Your task to perform on an android device: turn on translation in the chrome app Image 0: 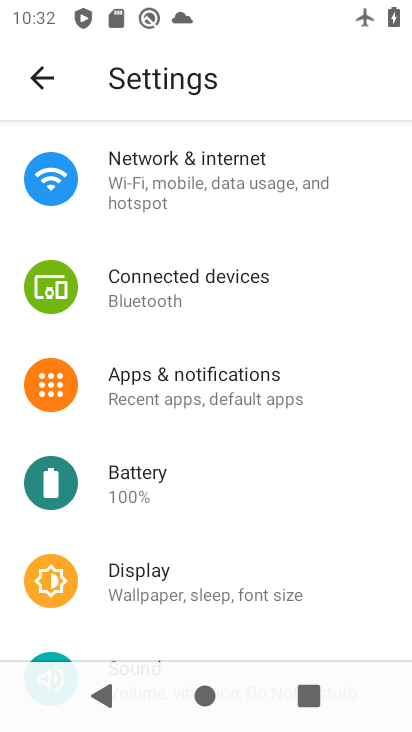
Step 0: press home button
Your task to perform on an android device: turn on translation in the chrome app Image 1: 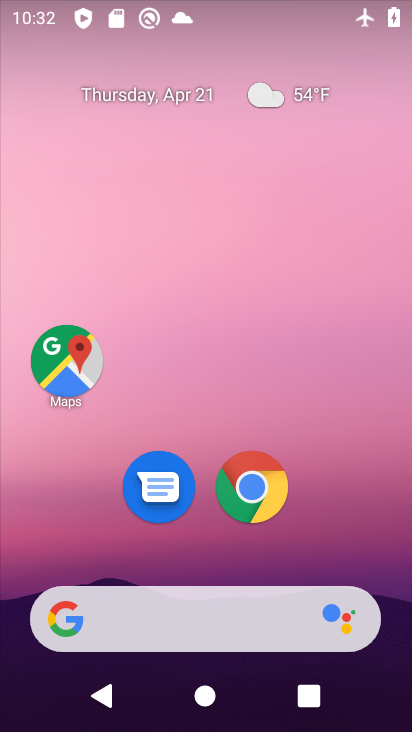
Step 1: drag from (390, 537) to (350, 137)
Your task to perform on an android device: turn on translation in the chrome app Image 2: 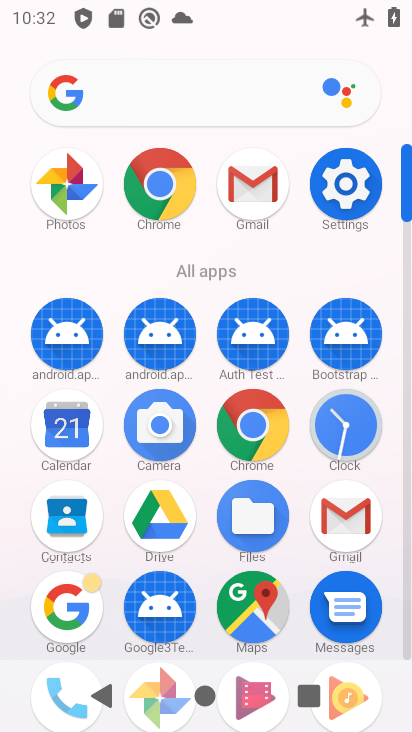
Step 2: click (265, 436)
Your task to perform on an android device: turn on translation in the chrome app Image 3: 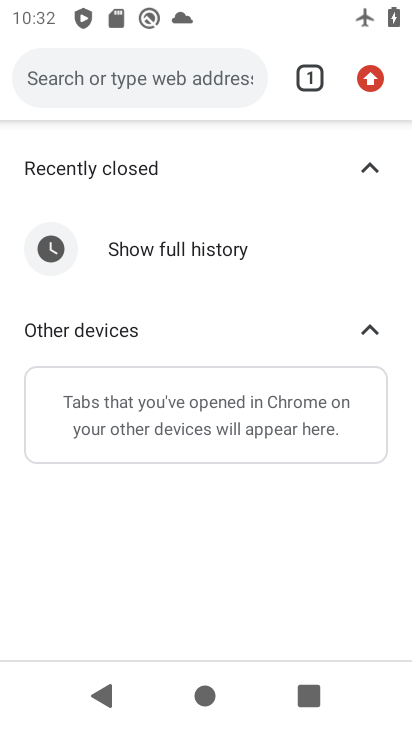
Step 3: drag from (373, 82) to (280, 561)
Your task to perform on an android device: turn on translation in the chrome app Image 4: 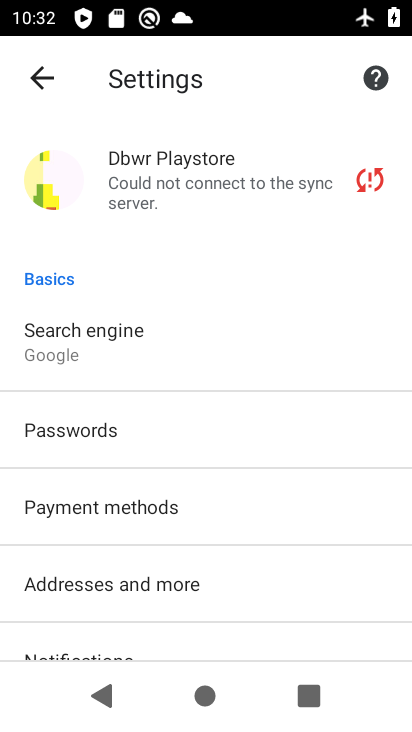
Step 4: drag from (258, 595) to (284, 291)
Your task to perform on an android device: turn on translation in the chrome app Image 5: 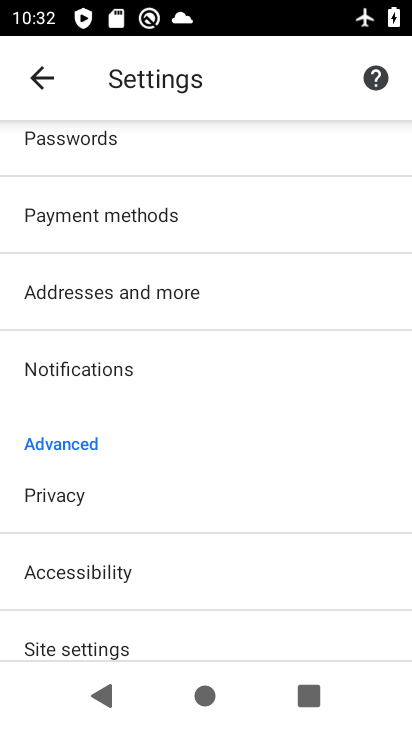
Step 5: drag from (283, 518) to (301, 280)
Your task to perform on an android device: turn on translation in the chrome app Image 6: 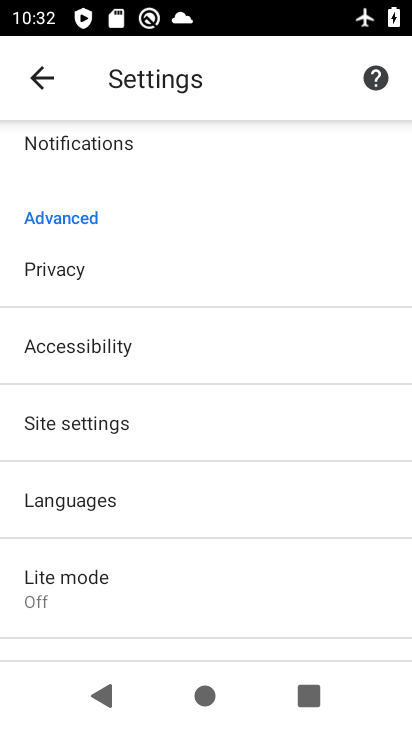
Step 6: click (176, 515)
Your task to perform on an android device: turn on translation in the chrome app Image 7: 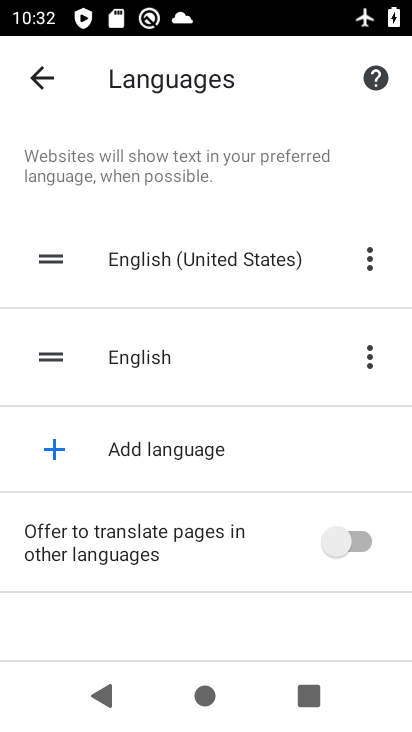
Step 7: click (358, 534)
Your task to perform on an android device: turn on translation in the chrome app Image 8: 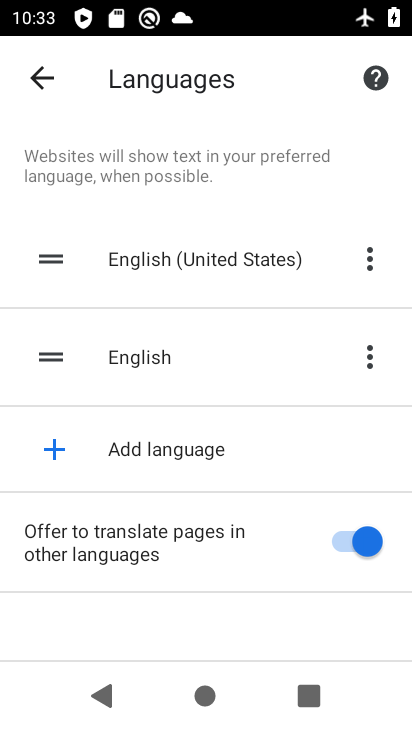
Step 8: press home button
Your task to perform on an android device: turn on translation in the chrome app Image 9: 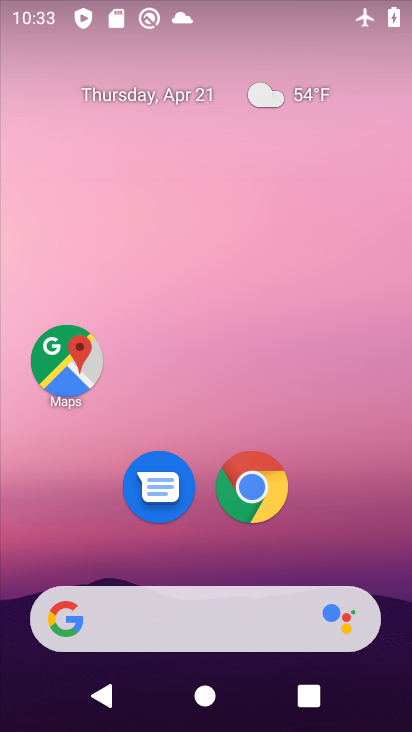
Step 9: drag from (344, 527) to (385, 162)
Your task to perform on an android device: turn on translation in the chrome app Image 10: 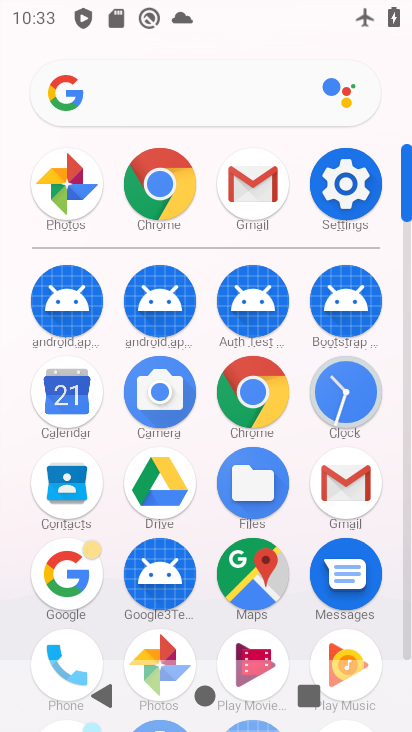
Step 10: click (365, 180)
Your task to perform on an android device: turn on translation in the chrome app Image 11: 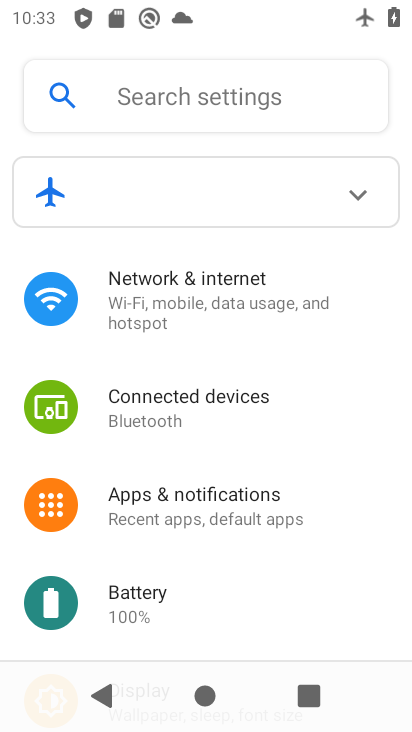
Step 11: press home button
Your task to perform on an android device: turn on translation in the chrome app Image 12: 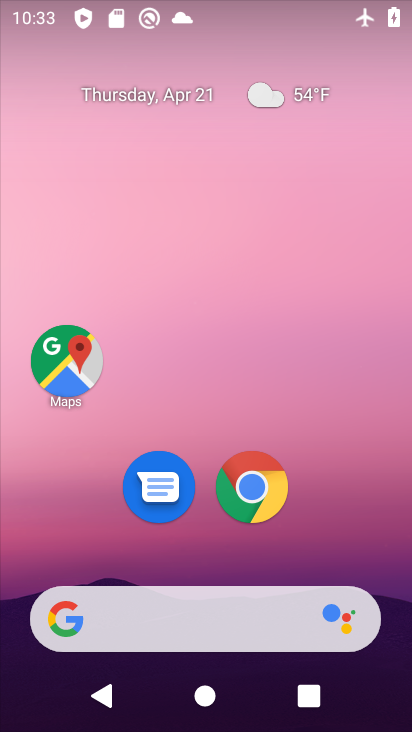
Step 12: drag from (371, 531) to (395, 158)
Your task to perform on an android device: turn on translation in the chrome app Image 13: 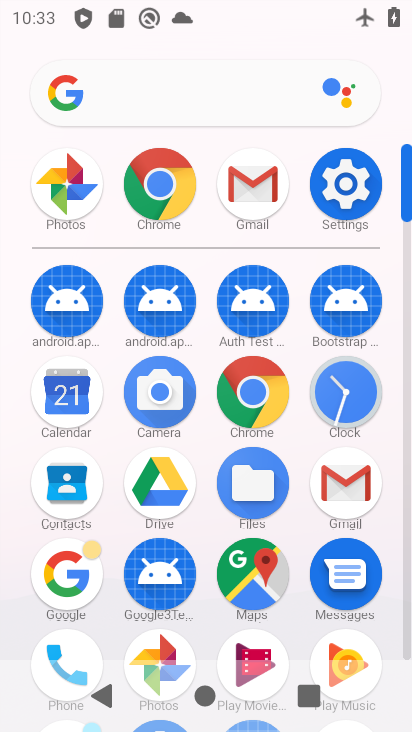
Step 13: click (245, 408)
Your task to perform on an android device: turn on translation in the chrome app Image 14: 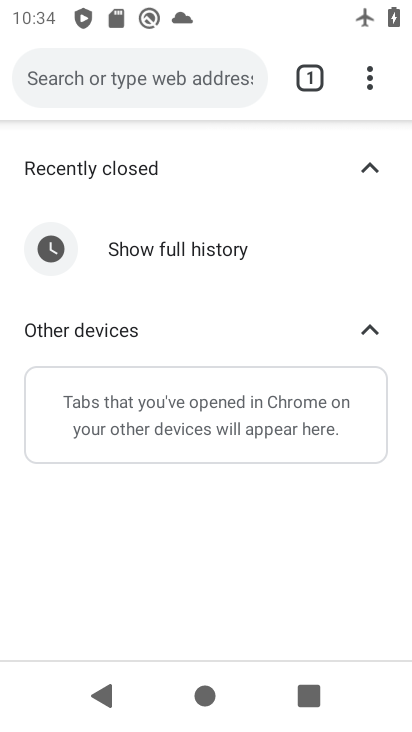
Step 14: drag from (376, 80) to (162, 552)
Your task to perform on an android device: turn on translation in the chrome app Image 15: 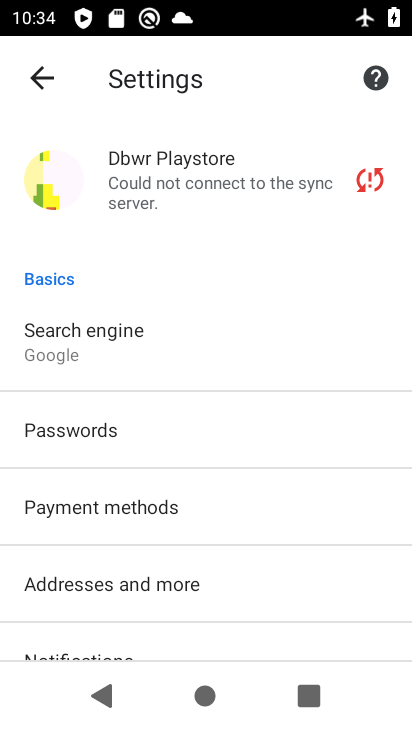
Step 15: drag from (274, 631) to (298, 347)
Your task to perform on an android device: turn on translation in the chrome app Image 16: 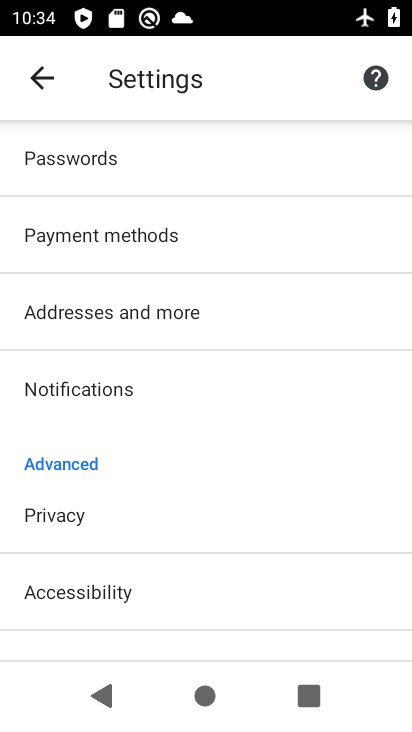
Step 16: drag from (268, 547) to (295, 327)
Your task to perform on an android device: turn on translation in the chrome app Image 17: 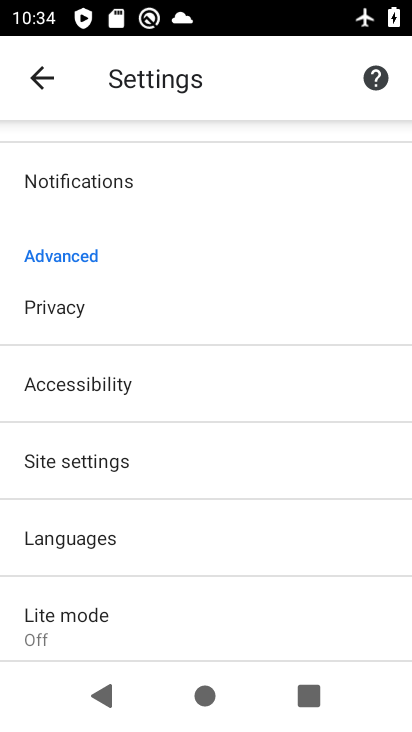
Step 17: click (127, 539)
Your task to perform on an android device: turn on translation in the chrome app Image 18: 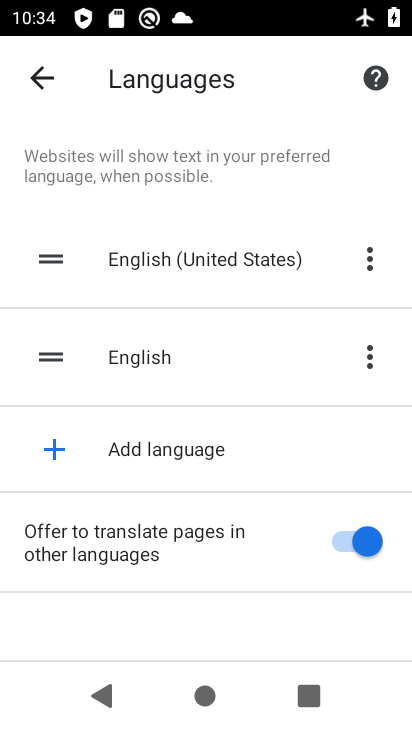
Step 18: task complete